Your task to perform on an android device: Open Amazon Image 0: 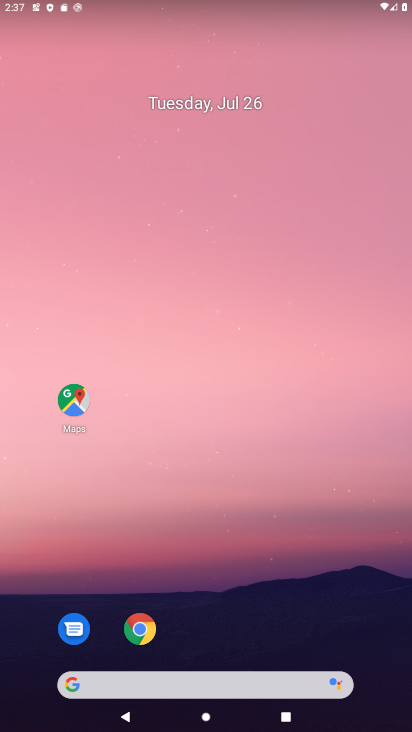
Step 0: click (149, 620)
Your task to perform on an android device: Open Amazon Image 1: 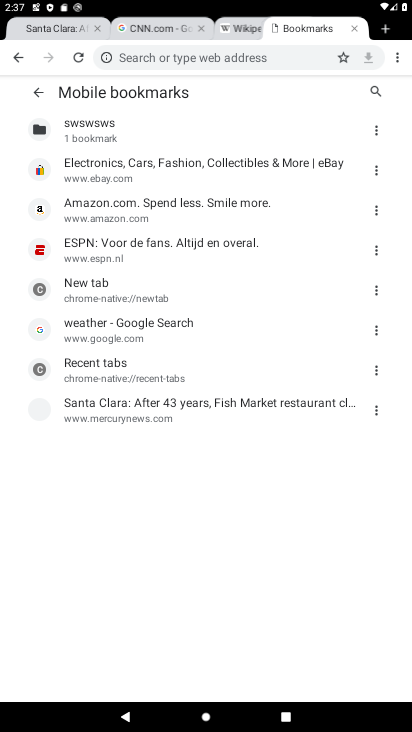
Step 1: click (379, 29)
Your task to perform on an android device: Open Amazon Image 2: 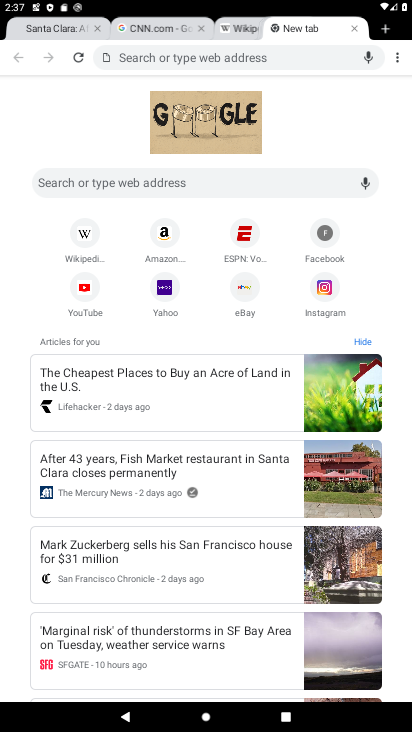
Step 2: click (175, 237)
Your task to perform on an android device: Open Amazon Image 3: 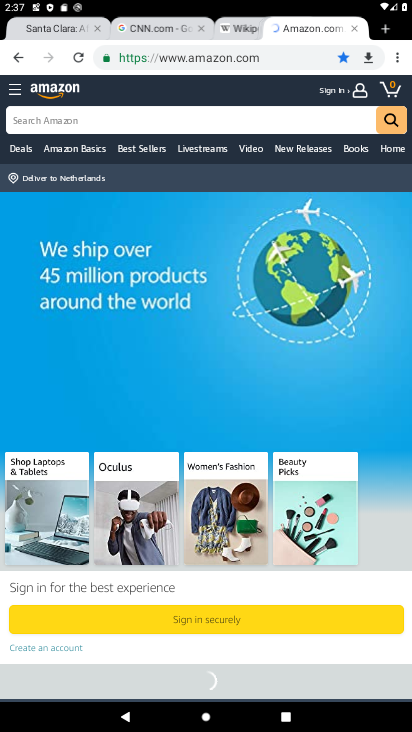
Step 3: task complete